Your task to perform on an android device: uninstall "Nova Launcher" Image 0: 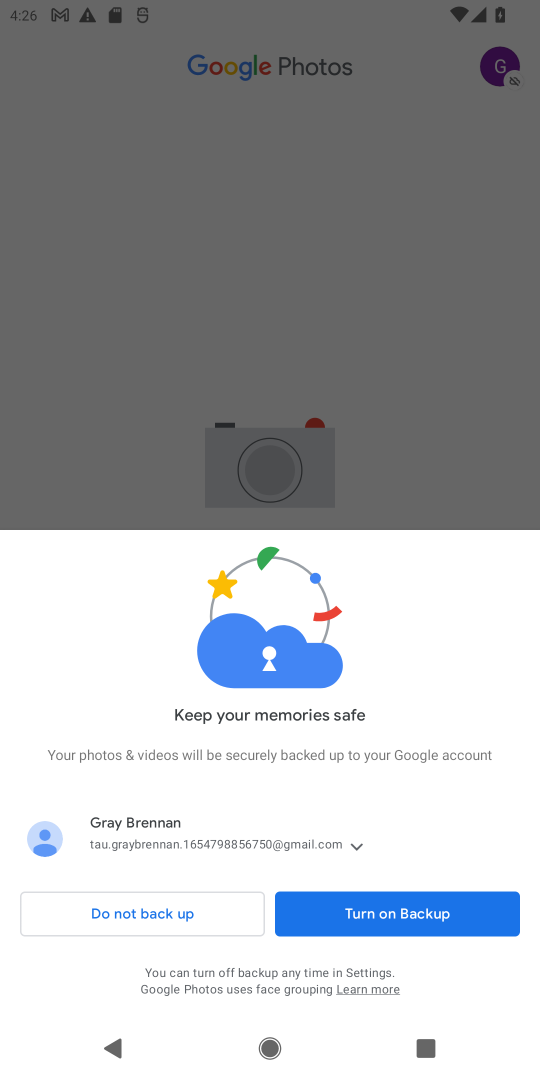
Step 0: press home button
Your task to perform on an android device: uninstall "Nova Launcher" Image 1: 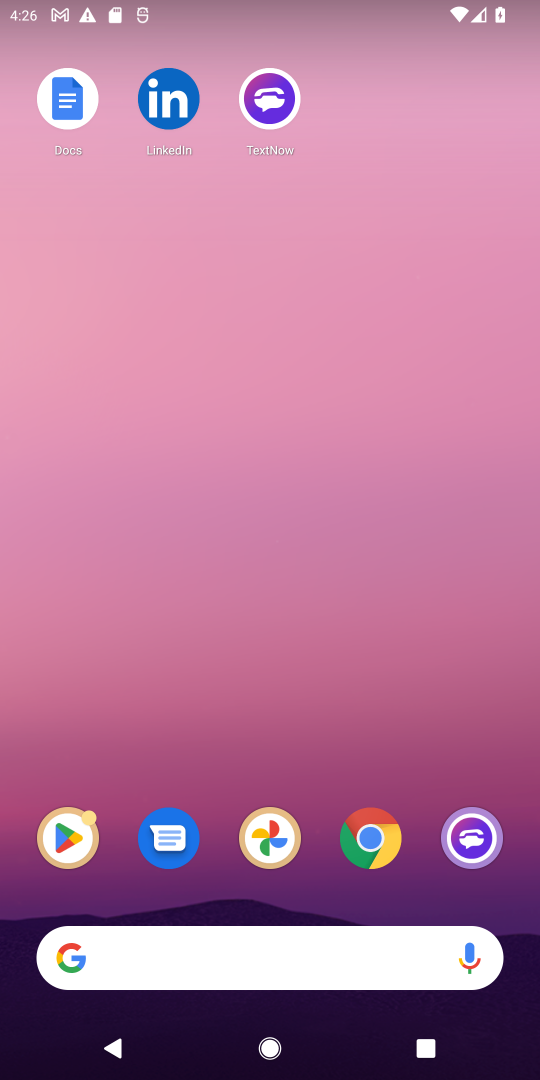
Step 1: click (80, 824)
Your task to perform on an android device: uninstall "Nova Launcher" Image 2: 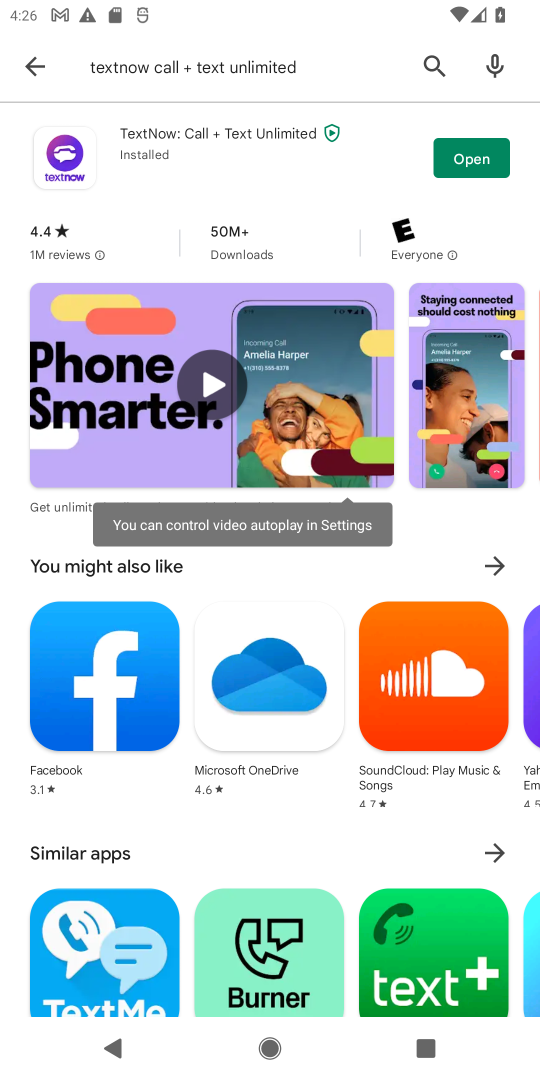
Step 2: click (435, 52)
Your task to perform on an android device: uninstall "Nova Launcher" Image 3: 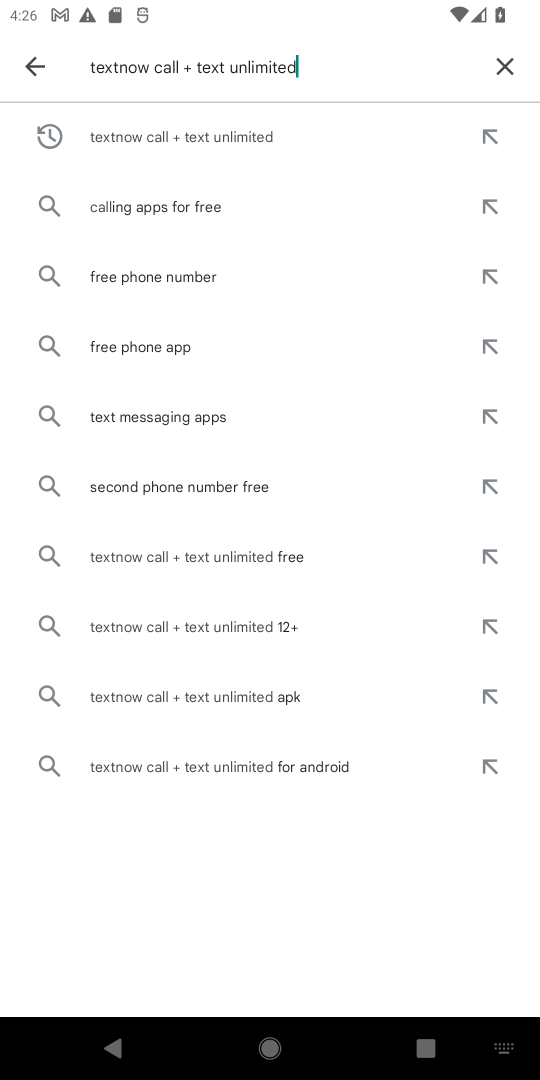
Step 3: click (498, 62)
Your task to perform on an android device: uninstall "Nova Launcher" Image 4: 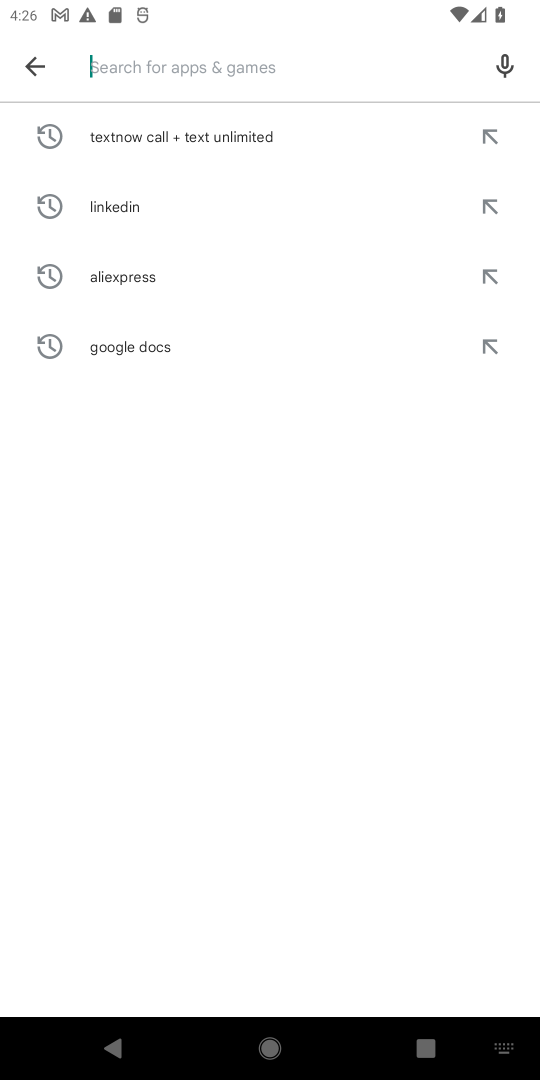
Step 4: type "Nova Launcher"
Your task to perform on an android device: uninstall "Nova Launcher" Image 5: 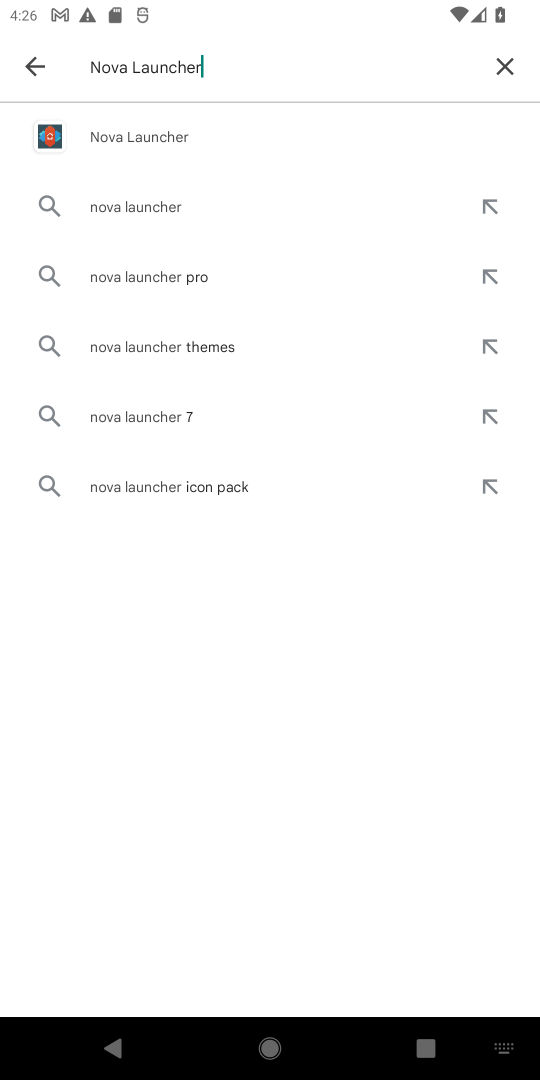
Step 5: click (240, 124)
Your task to perform on an android device: uninstall "Nova Launcher" Image 6: 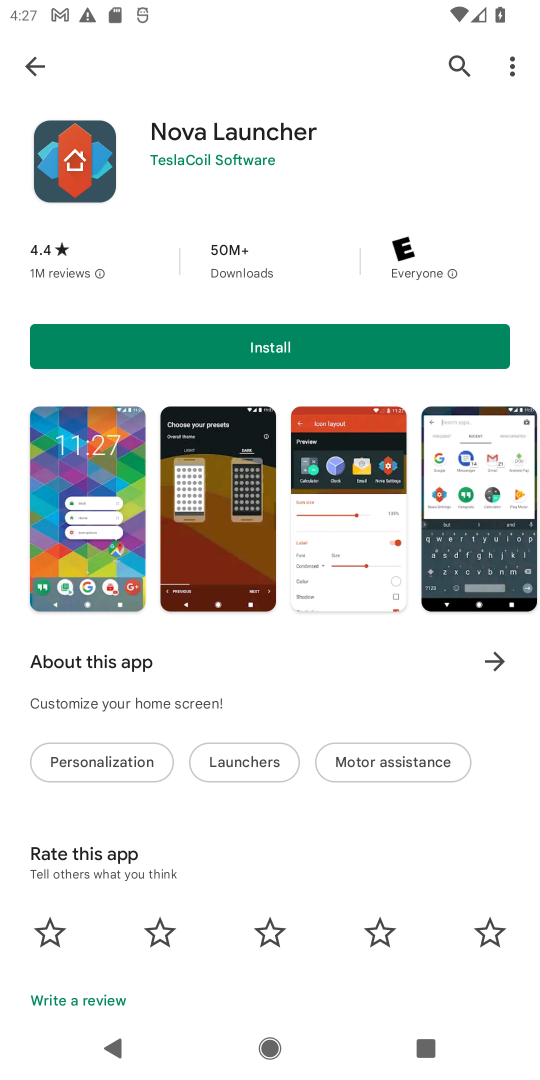
Step 6: task complete